Your task to perform on an android device: Go to battery settings Image 0: 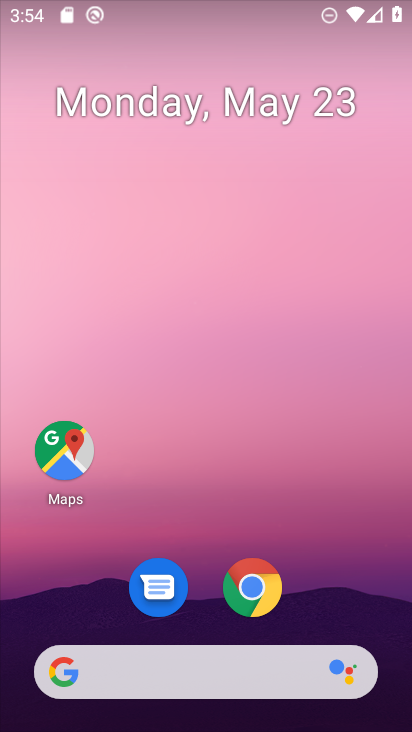
Step 0: drag from (295, 602) to (233, 7)
Your task to perform on an android device: Go to battery settings Image 1: 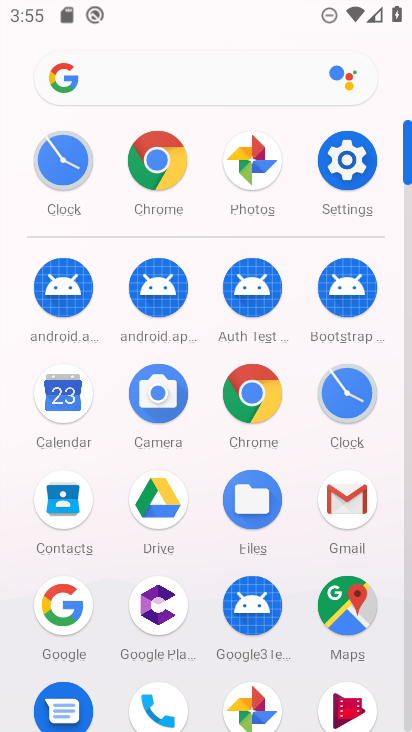
Step 1: click (357, 176)
Your task to perform on an android device: Go to battery settings Image 2: 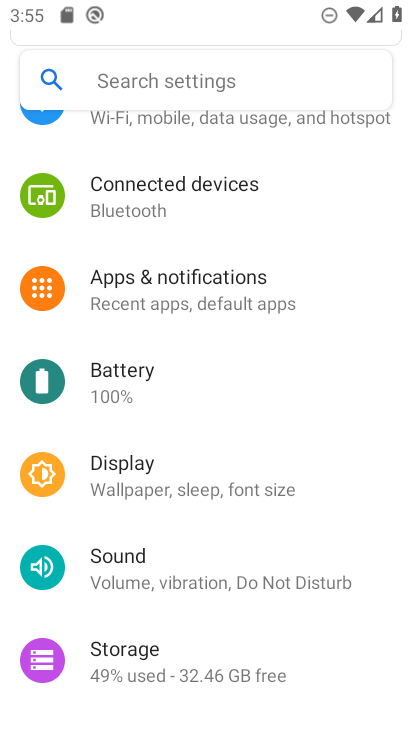
Step 2: click (142, 368)
Your task to perform on an android device: Go to battery settings Image 3: 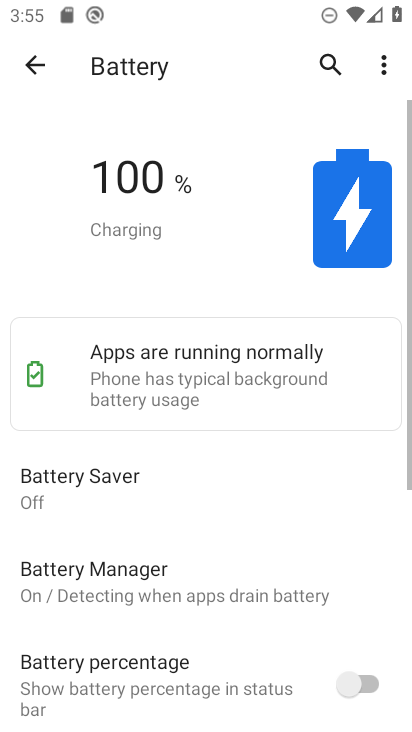
Step 3: task complete